Your task to perform on an android device: turn smart compose on in the gmail app Image 0: 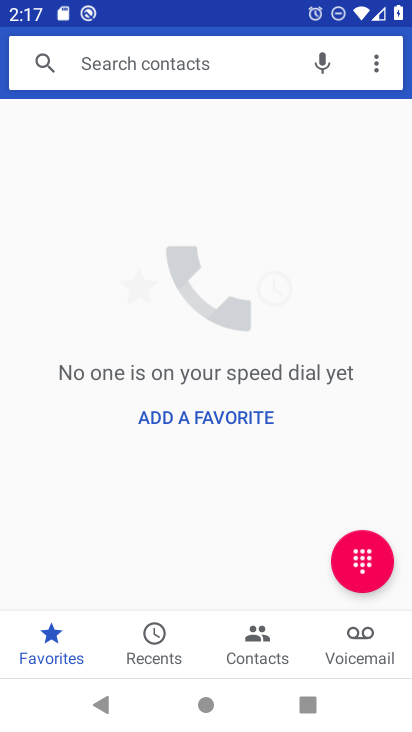
Step 0: press home button
Your task to perform on an android device: turn smart compose on in the gmail app Image 1: 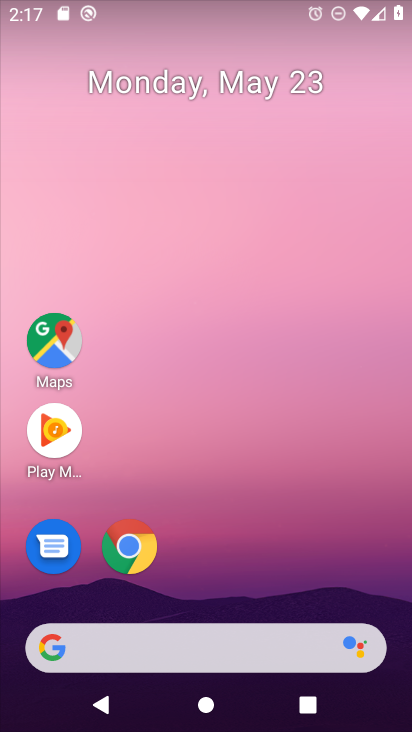
Step 1: drag from (221, 543) to (171, 161)
Your task to perform on an android device: turn smart compose on in the gmail app Image 2: 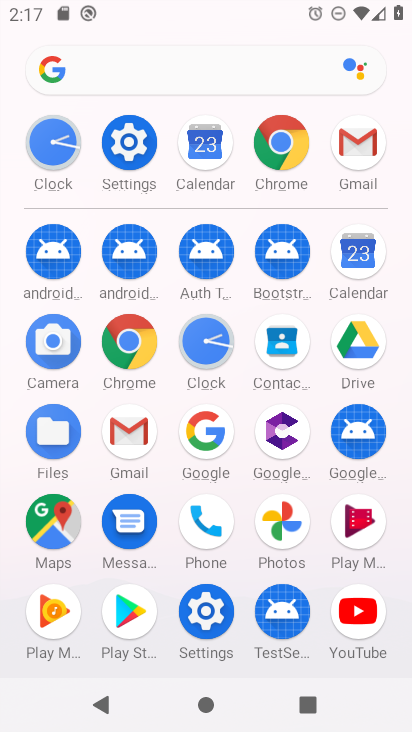
Step 2: click (137, 428)
Your task to perform on an android device: turn smart compose on in the gmail app Image 3: 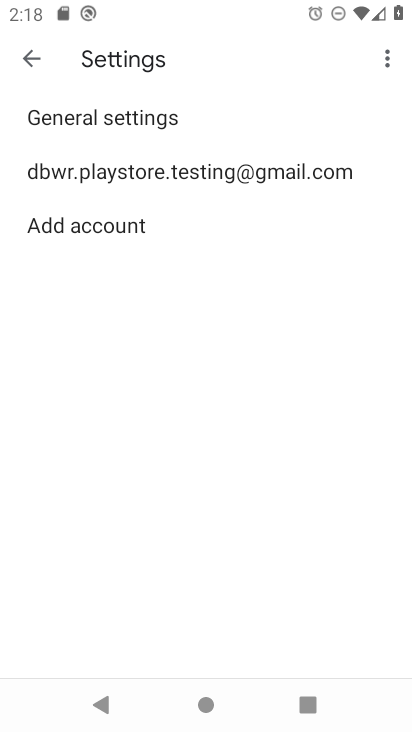
Step 3: click (205, 166)
Your task to perform on an android device: turn smart compose on in the gmail app Image 4: 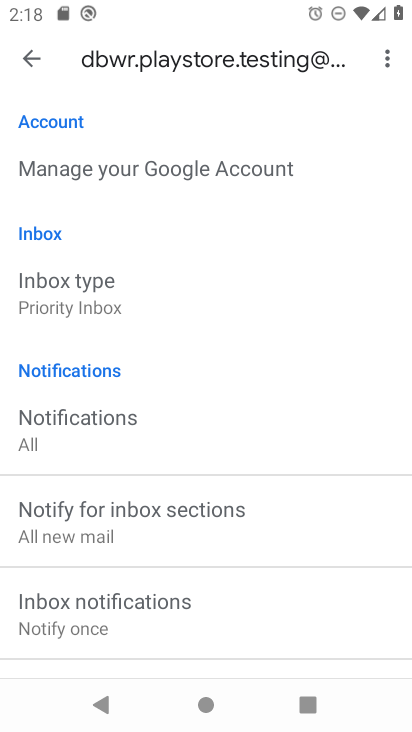
Step 4: task complete